Your task to perform on an android device: open app "DoorDash - Dasher" (install if not already installed) and go to login screen Image 0: 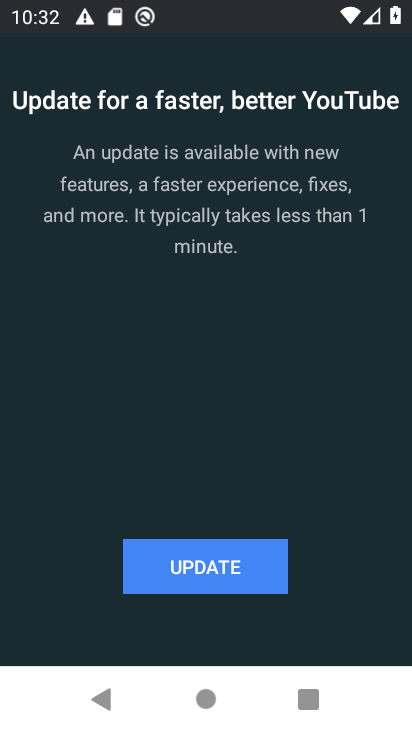
Step 0: press home button
Your task to perform on an android device: open app "DoorDash - Dasher" (install if not already installed) and go to login screen Image 1: 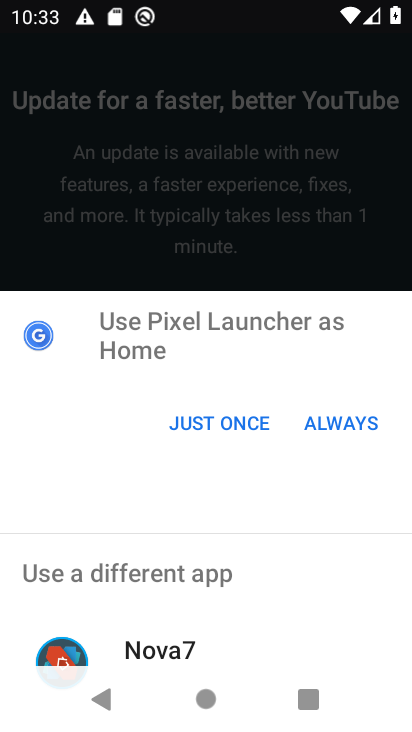
Step 1: click (189, 413)
Your task to perform on an android device: open app "DoorDash - Dasher" (install if not already installed) and go to login screen Image 2: 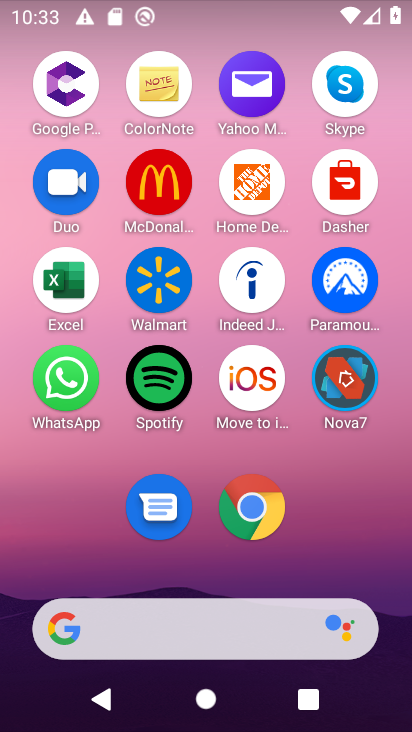
Step 2: drag from (350, 577) to (313, 4)
Your task to perform on an android device: open app "DoorDash - Dasher" (install if not already installed) and go to login screen Image 3: 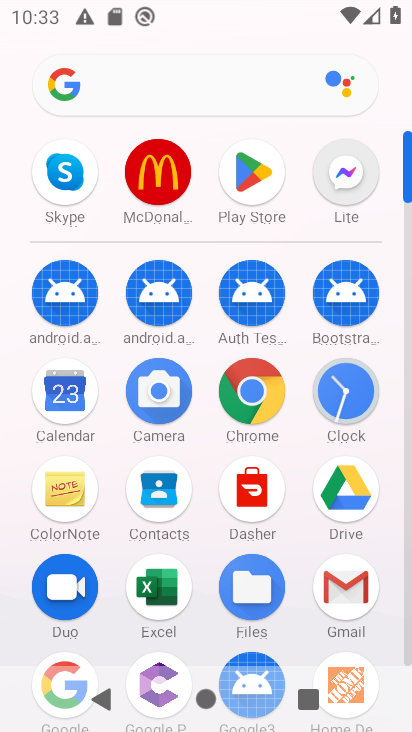
Step 3: click (256, 179)
Your task to perform on an android device: open app "DoorDash - Dasher" (install if not already installed) and go to login screen Image 4: 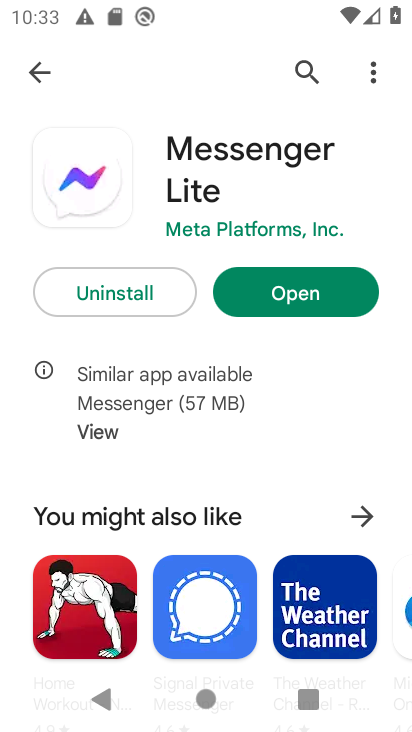
Step 4: click (309, 74)
Your task to perform on an android device: open app "DoorDash - Dasher" (install if not already installed) and go to login screen Image 5: 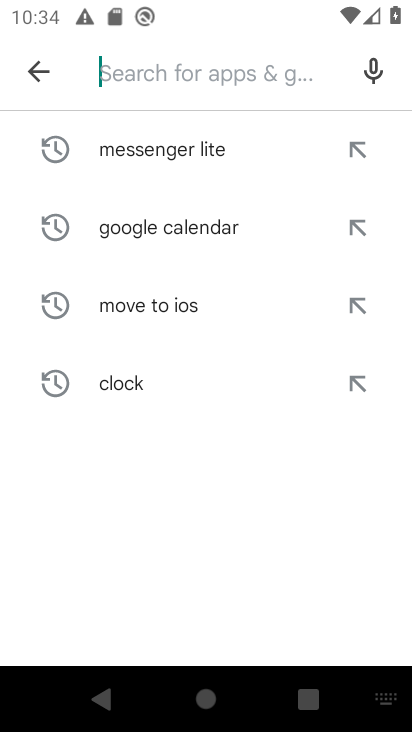
Step 5: type "DoorDash - Dashe"
Your task to perform on an android device: open app "DoorDash - Dasher" (install if not already installed) and go to login screen Image 6: 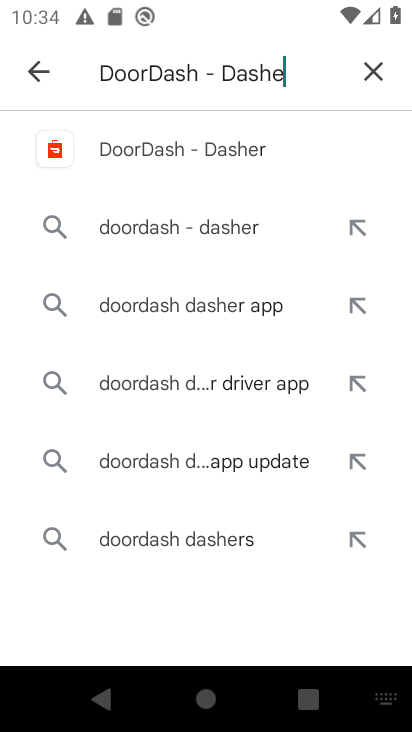
Step 6: click (149, 140)
Your task to perform on an android device: open app "DoorDash - Dasher" (install if not already installed) and go to login screen Image 7: 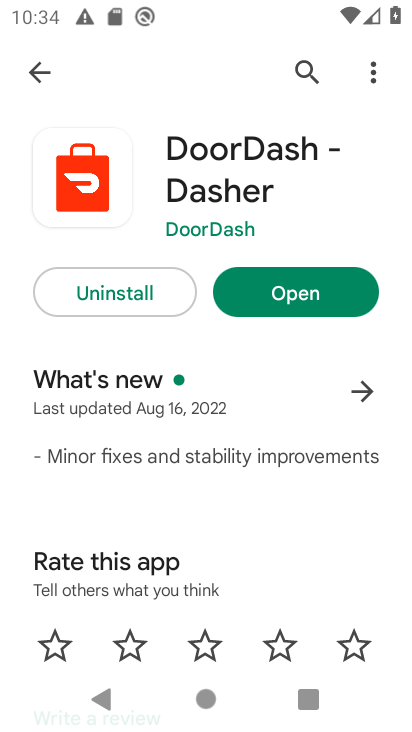
Step 7: click (286, 289)
Your task to perform on an android device: open app "DoorDash - Dasher" (install if not already installed) and go to login screen Image 8: 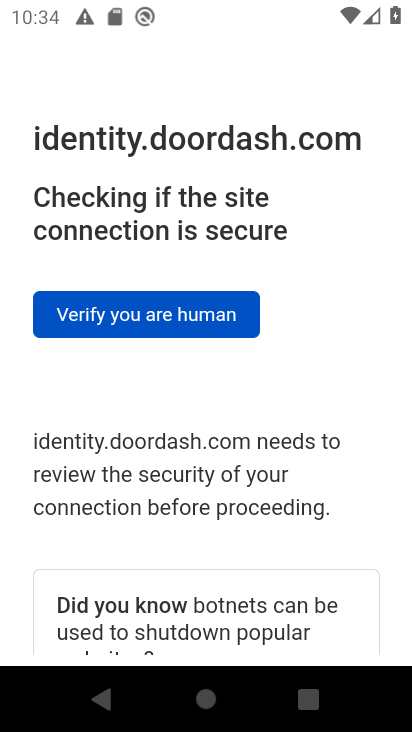
Step 8: click (109, 307)
Your task to perform on an android device: open app "DoorDash - Dasher" (install if not already installed) and go to login screen Image 9: 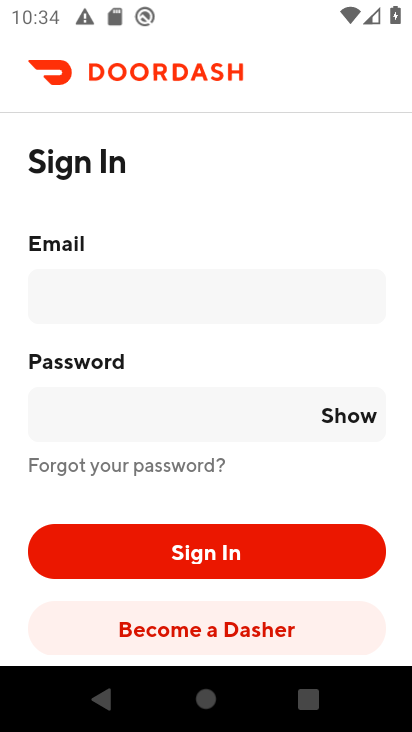
Step 9: task complete